Your task to perform on an android device: Show me popular games on the Play Store Image 0: 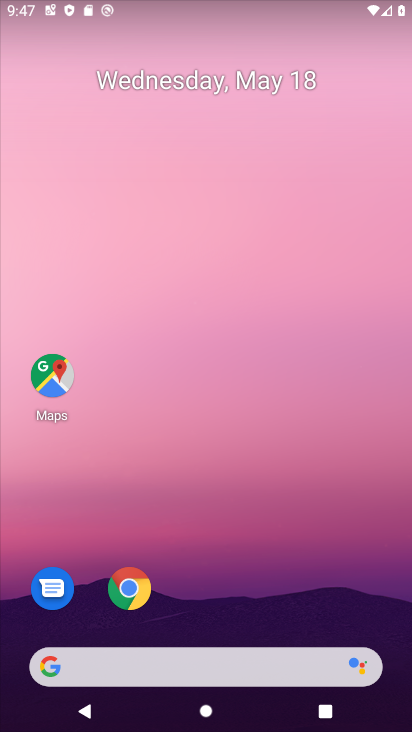
Step 0: drag from (293, 682) to (219, 264)
Your task to perform on an android device: Show me popular games on the Play Store Image 1: 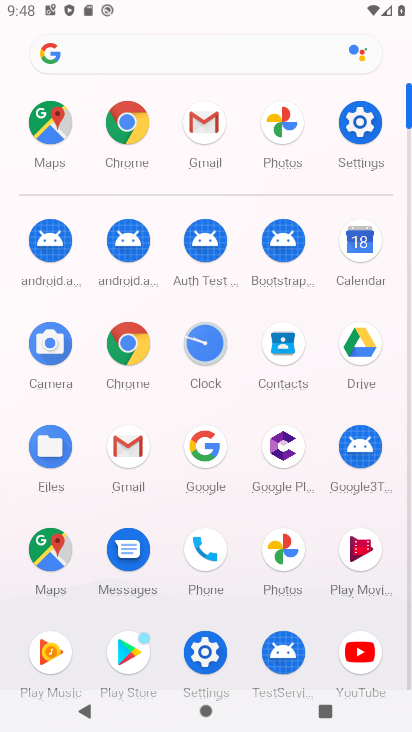
Step 1: click (139, 642)
Your task to perform on an android device: Show me popular games on the Play Store Image 2: 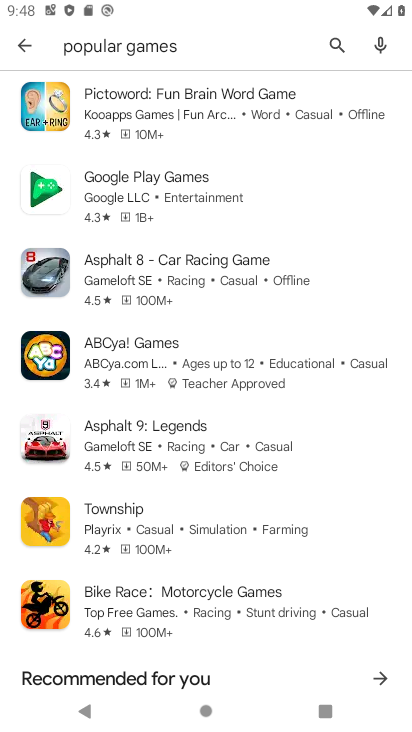
Step 2: task complete